Your task to perform on an android device: turn off location history Image 0: 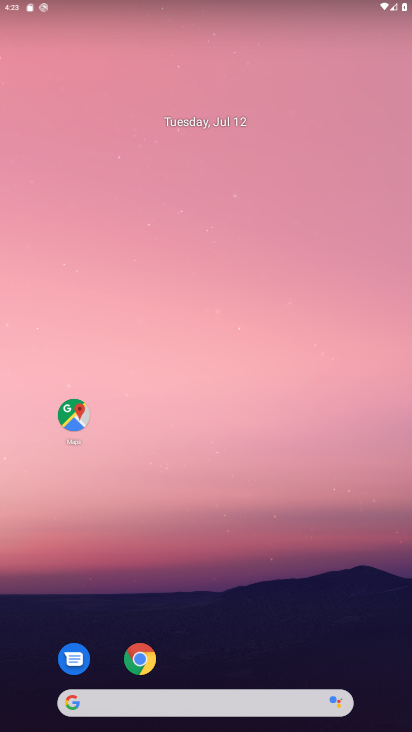
Step 0: drag from (38, 708) to (384, 51)
Your task to perform on an android device: turn off location history Image 1: 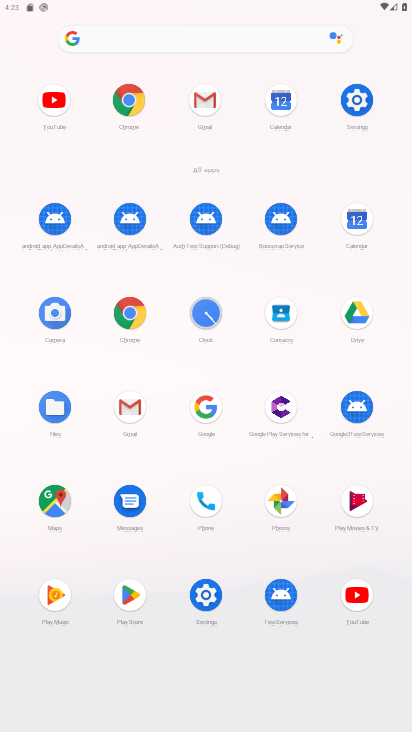
Step 1: click (132, 309)
Your task to perform on an android device: turn off location history Image 2: 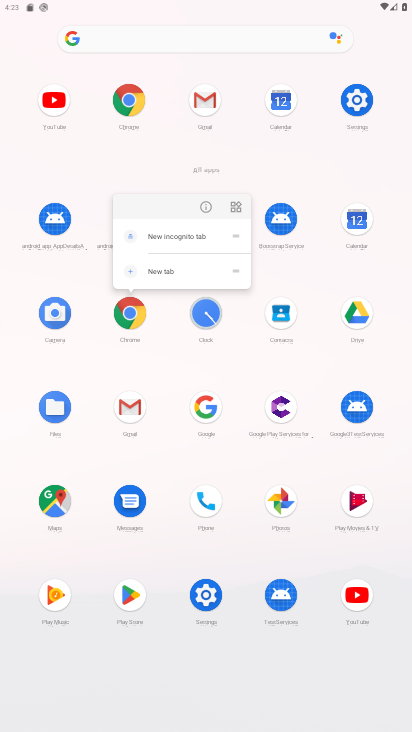
Step 2: click (201, 609)
Your task to perform on an android device: turn off location history Image 3: 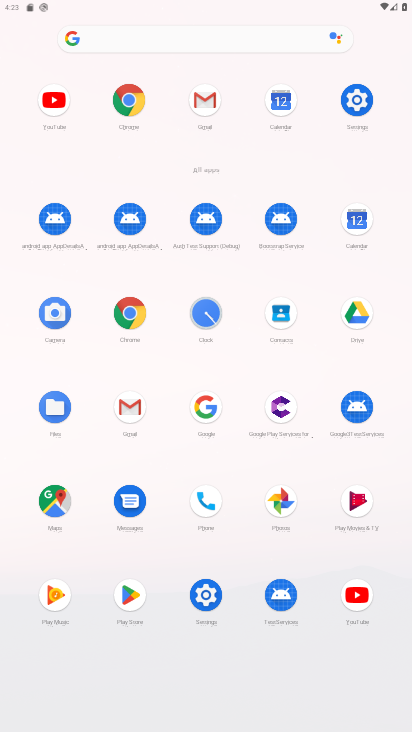
Step 3: click (208, 600)
Your task to perform on an android device: turn off location history Image 4: 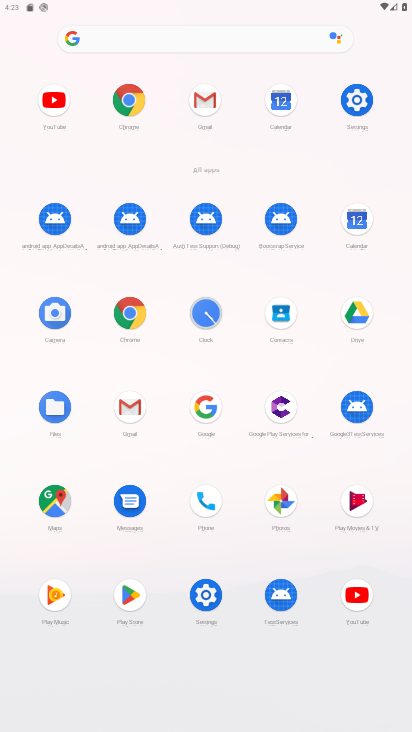
Step 4: click (206, 597)
Your task to perform on an android device: turn off location history Image 5: 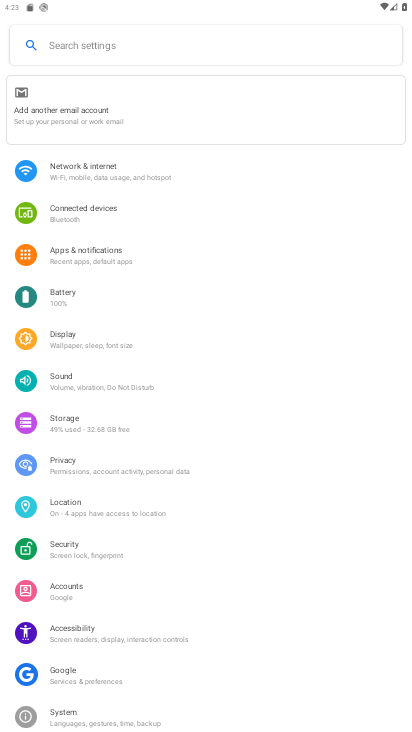
Step 5: click (88, 508)
Your task to perform on an android device: turn off location history Image 6: 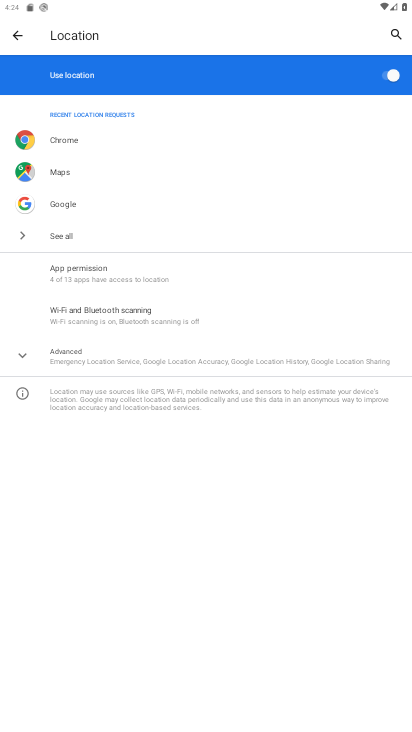
Step 6: click (75, 355)
Your task to perform on an android device: turn off location history Image 7: 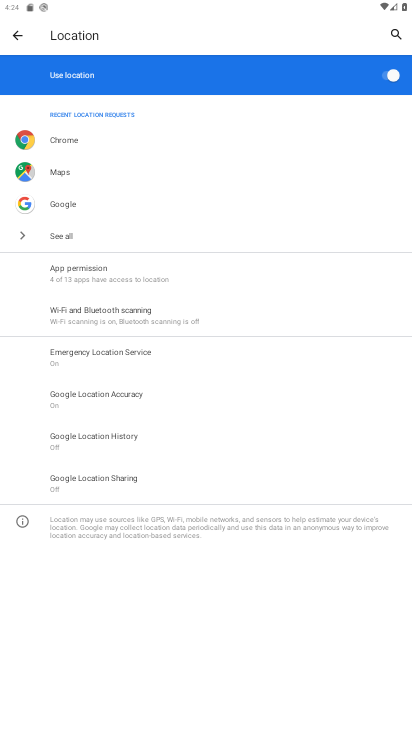
Step 7: click (105, 439)
Your task to perform on an android device: turn off location history Image 8: 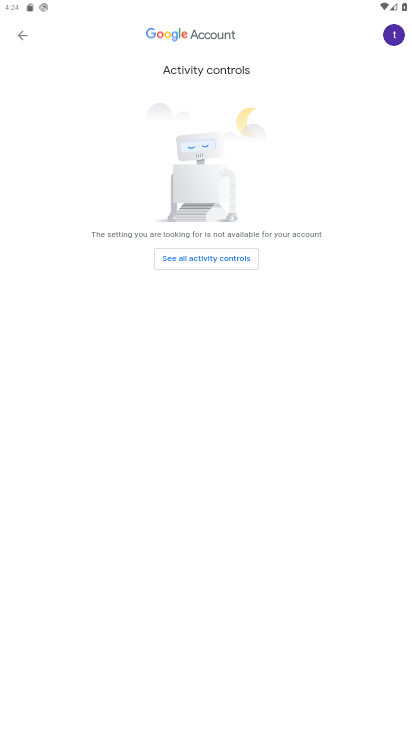
Step 8: task complete